Your task to perform on an android device: change the upload size in google photos Image 0: 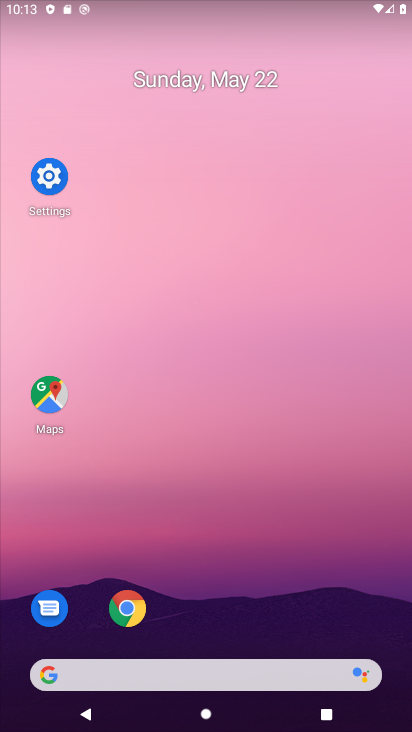
Step 0: drag from (205, 608) to (238, 172)
Your task to perform on an android device: change the upload size in google photos Image 1: 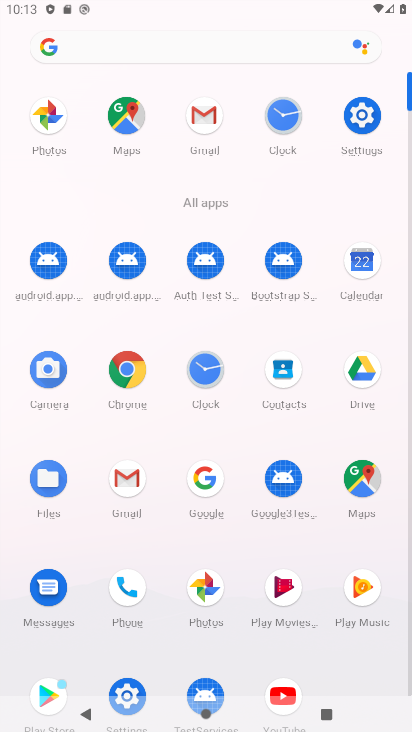
Step 1: drag from (209, 583) to (139, 362)
Your task to perform on an android device: change the upload size in google photos Image 2: 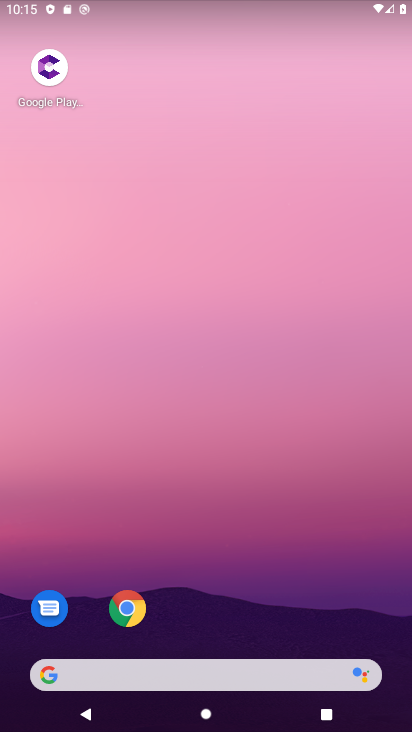
Step 2: drag from (215, 621) to (230, 137)
Your task to perform on an android device: change the upload size in google photos Image 3: 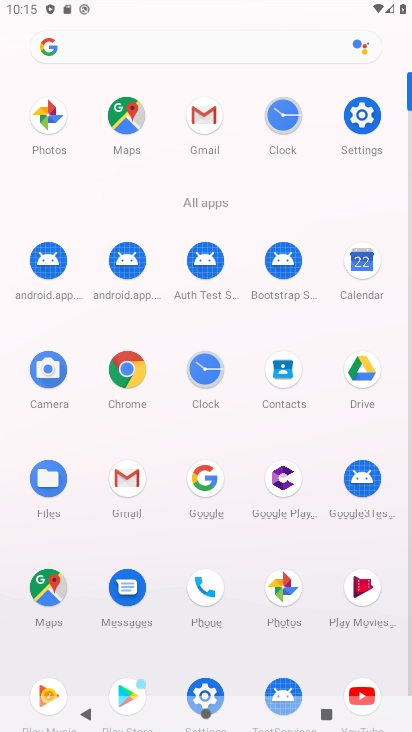
Step 3: drag from (240, 626) to (288, 296)
Your task to perform on an android device: change the upload size in google photos Image 4: 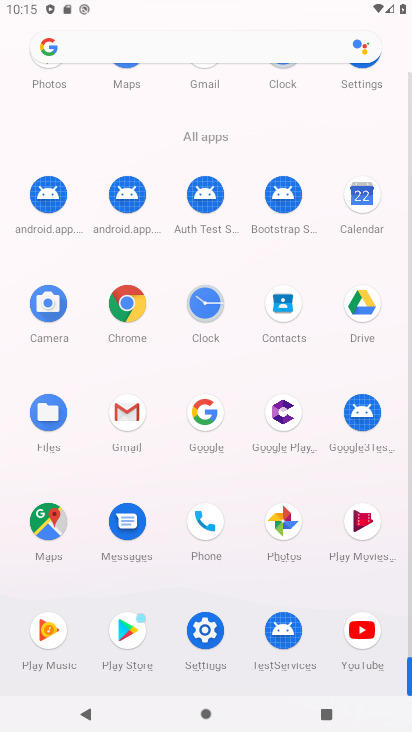
Step 4: click (294, 536)
Your task to perform on an android device: change the upload size in google photos Image 5: 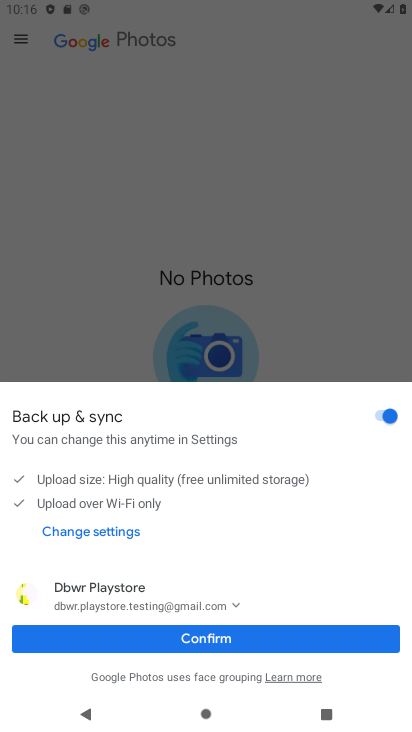
Step 5: click (305, 634)
Your task to perform on an android device: change the upload size in google photos Image 6: 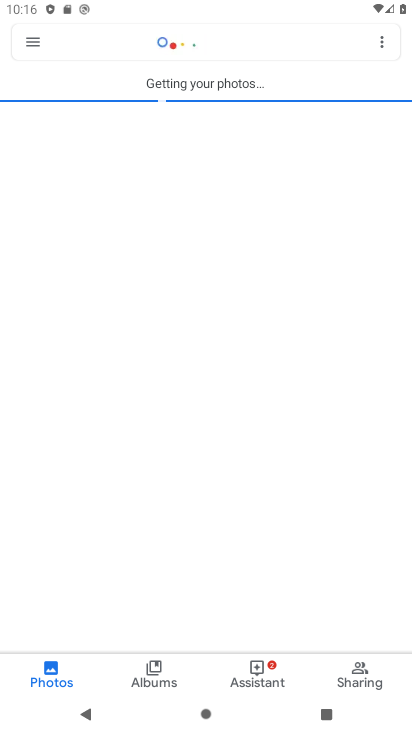
Step 6: click (40, 54)
Your task to perform on an android device: change the upload size in google photos Image 7: 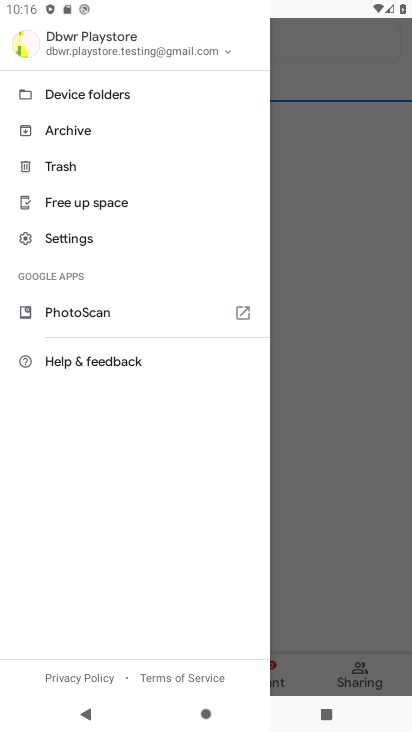
Step 7: click (107, 248)
Your task to perform on an android device: change the upload size in google photos Image 8: 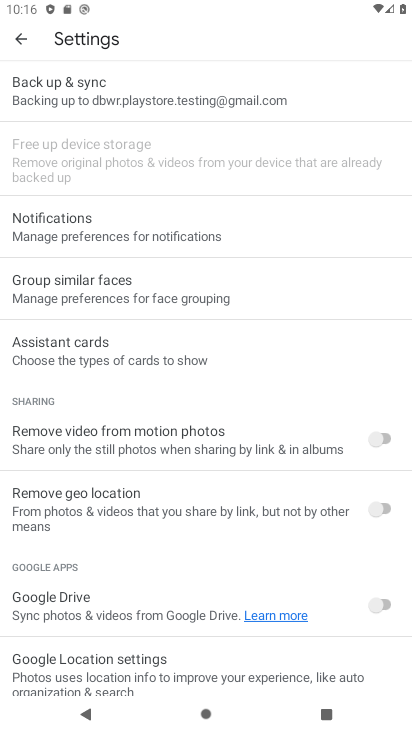
Step 8: click (137, 92)
Your task to perform on an android device: change the upload size in google photos Image 9: 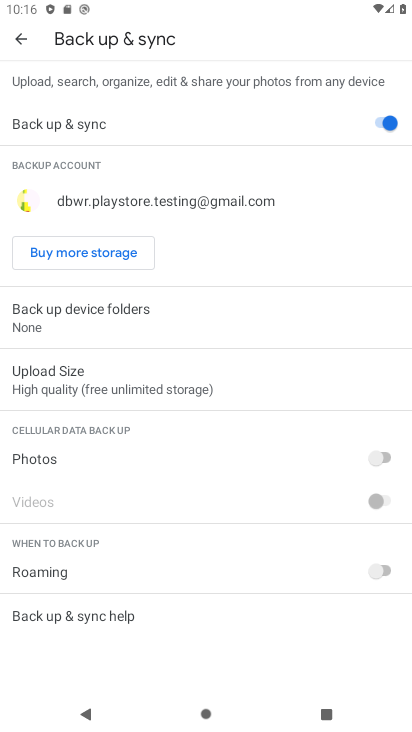
Step 9: click (169, 373)
Your task to perform on an android device: change the upload size in google photos Image 10: 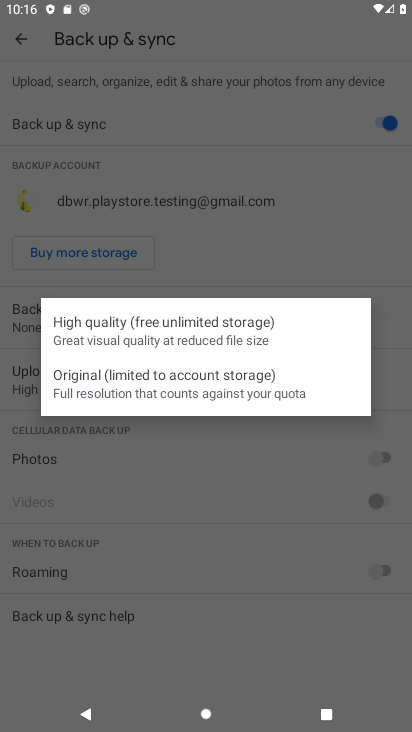
Step 10: click (246, 401)
Your task to perform on an android device: change the upload size in google photos Image 11: 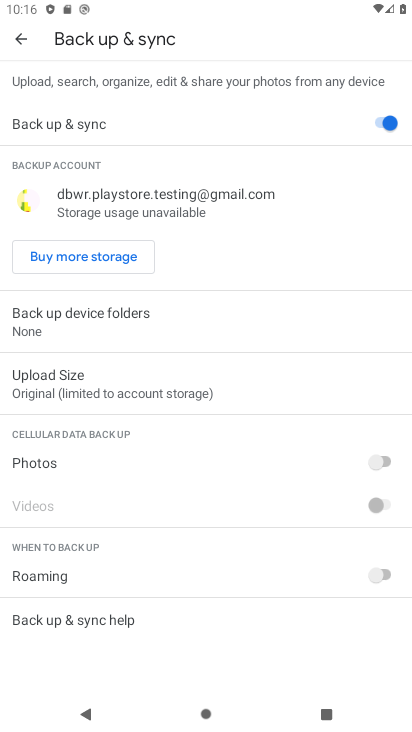
Step 11: task complete